Your task to perform on an android device: turn off wifi Image 0: 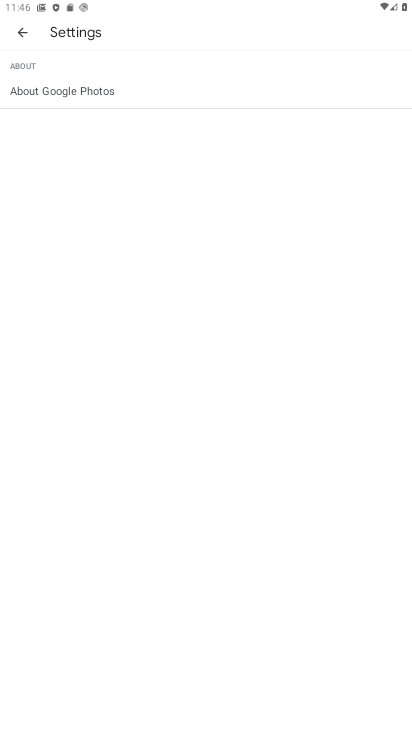
Step 0: click (21, 41)
Your task to perform on an android device: turn off wifi Image 1: 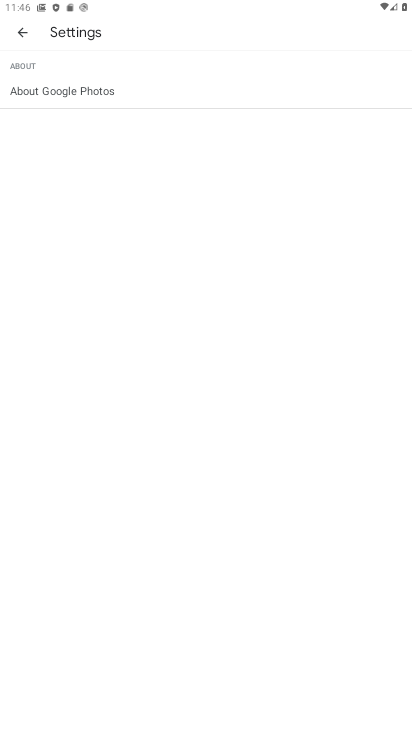
Step 1: click (21, 41)
Your task to perform on an android device: turn off wifi Image 2: 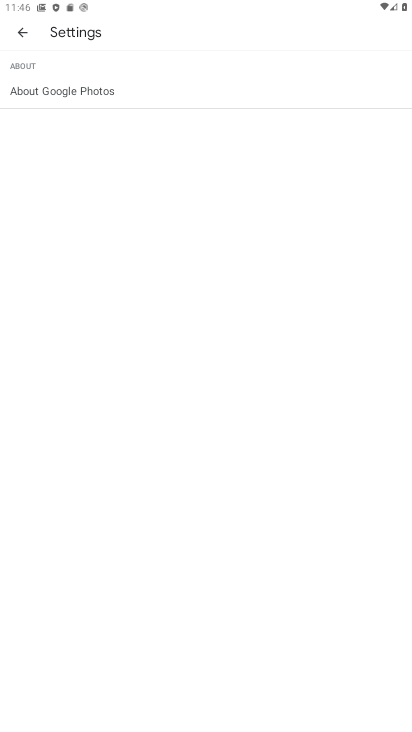
Step 2: click (21, 39)
Your task to perform on an android device: turn off wifi Image 3: 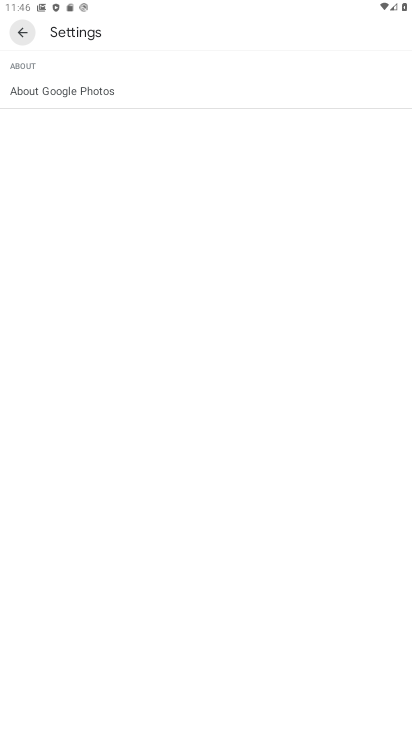
Step 3: click (21, 39)
Your task to perform on an android device: turn off wifi Image 4: 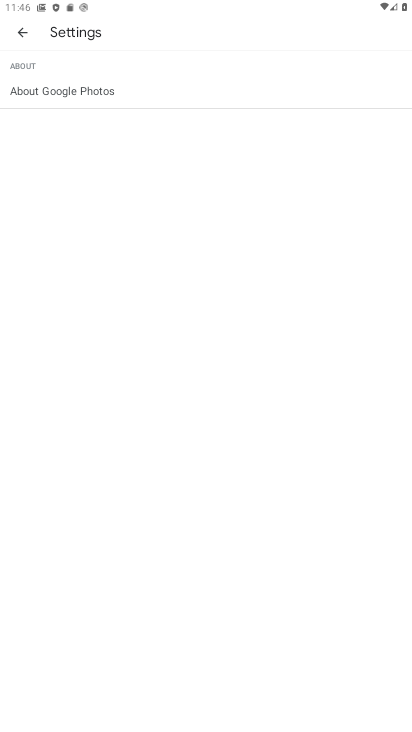
Step 4: click (21, 39)
Your task to perform on an android device: turn off wifi Image 5: 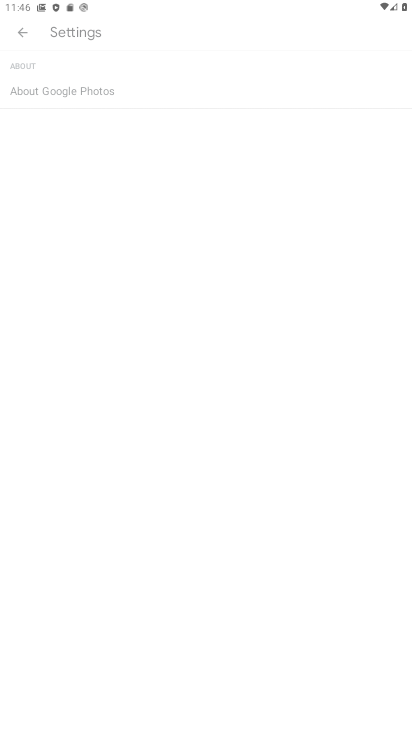
Step 5: click (23, 39)
Your task to perform on an android device: turn off wifi Image 6: 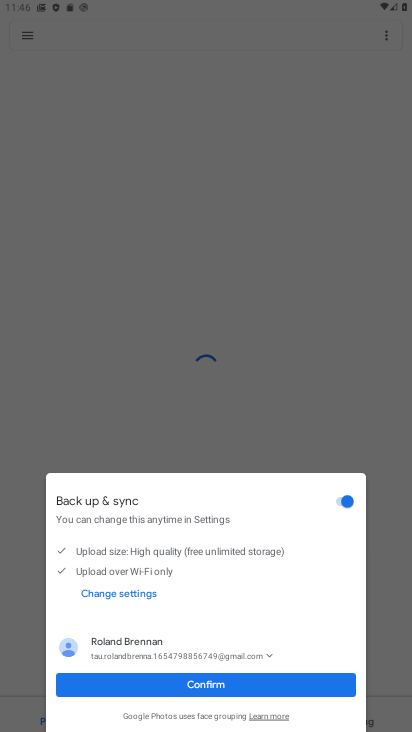
Step 6: press back button
Your task to perform on an android device: turn off wifi Image 7: 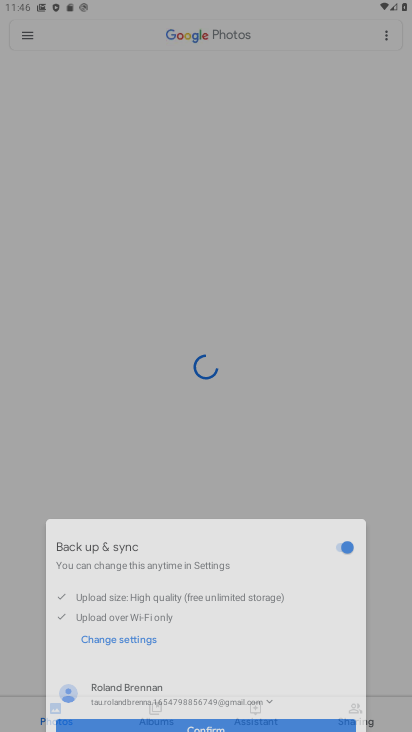
Step 7: press back button
Your task to perform on an android device: turn off wifi Image 8: 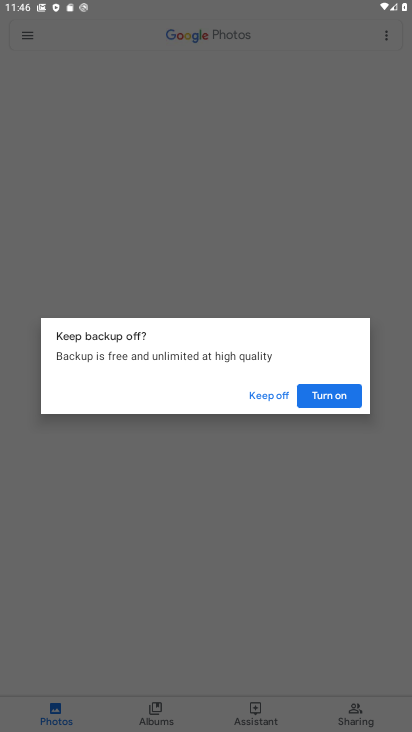
Step 8: press home button
Your task to perform on an android device: turn off wifi Image 9: 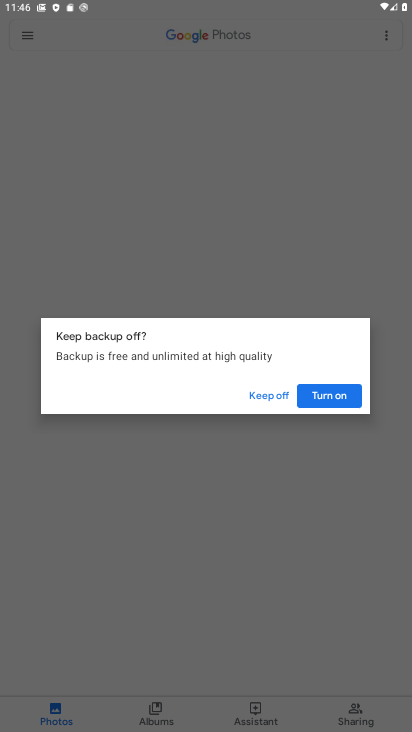
Step 9: press home button
Your task to perform on an android device: turn off wifi Image 10: 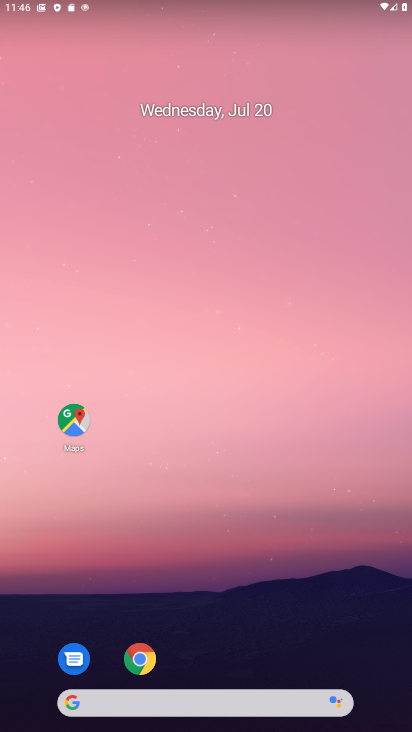
Step 10: click (123, 119)
Your task to perform on an android device: turn off wifi Image 11: 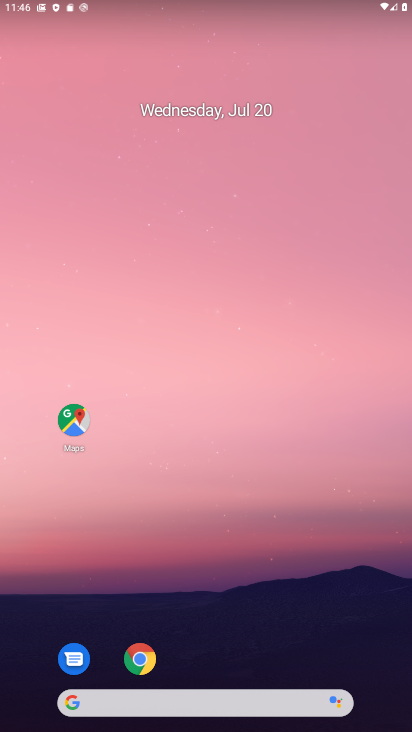
Step 11: drag from (269, 498) to (202, 151)
Your task to perform on an android device: turn off wifi Image 12: 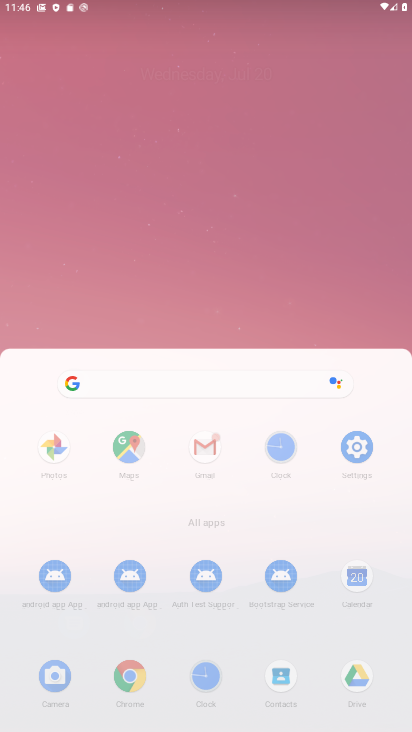
Step 12: drag from (233, 544) to (213, 161)
Your task to perform on an android device: turn off wifi Image 13: 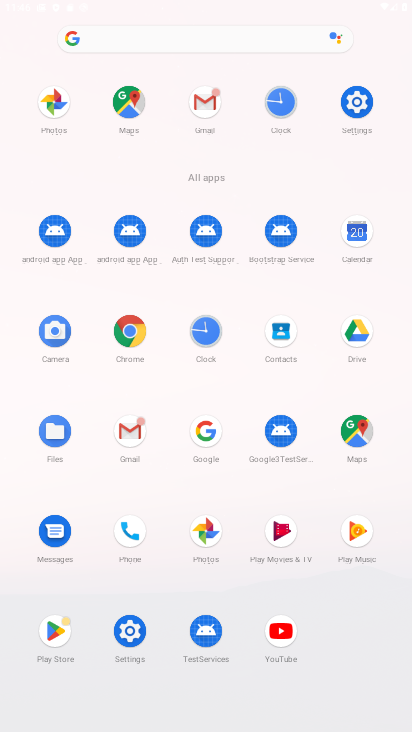
Step 13: drag from (208, 310) to (196, 143)
Your task to perform on an android device: turn off wifi Image 14: 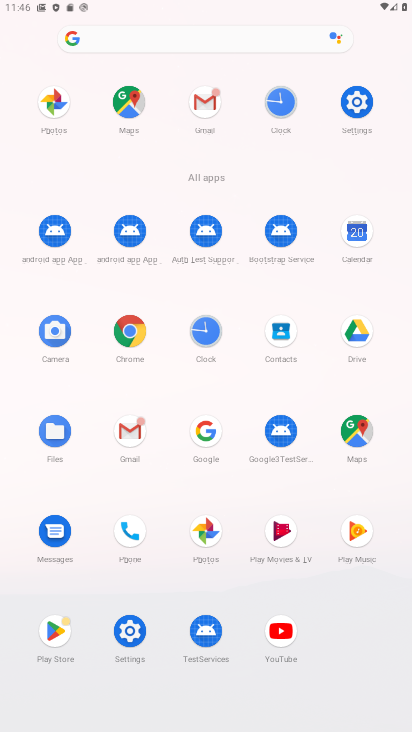
Step 14: click (354, 99)
Your task to perform on an android device: turn off wifi Image 15: 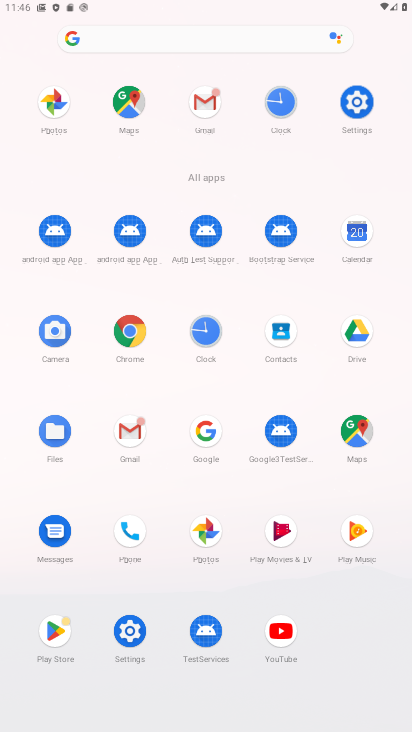
Step 15: click (356, 103)
Your task to perform on an android device: turn off wifi Image 16: 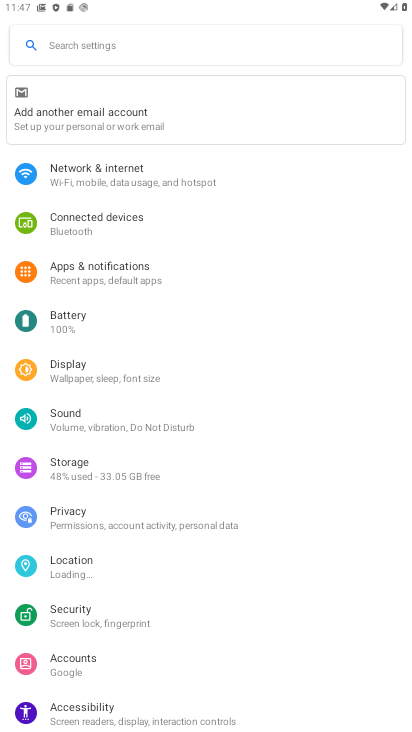
Step 16: click (100, 177)
Your task to perform on an android device: turn off wifi Image 17: 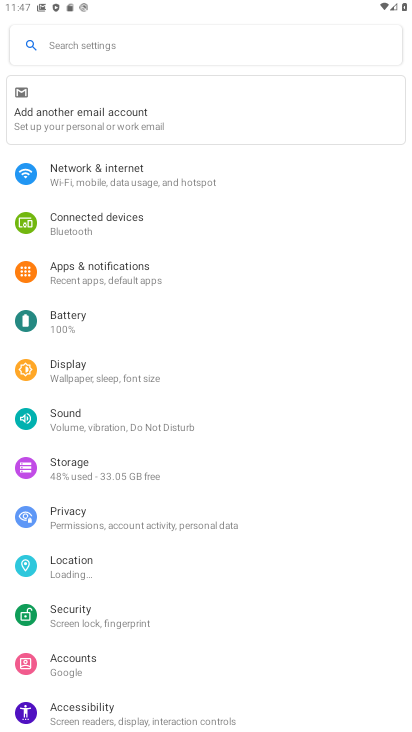
Step 17: click (101, 176)
Your task to perform on an android device: turn off wifi Image 18: 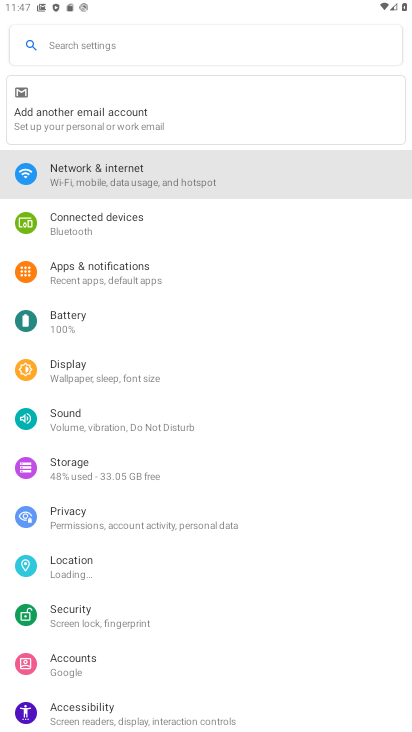
Step 18: click (101, 176)
Your task to perform on an android device: turn off wifi Image 19: 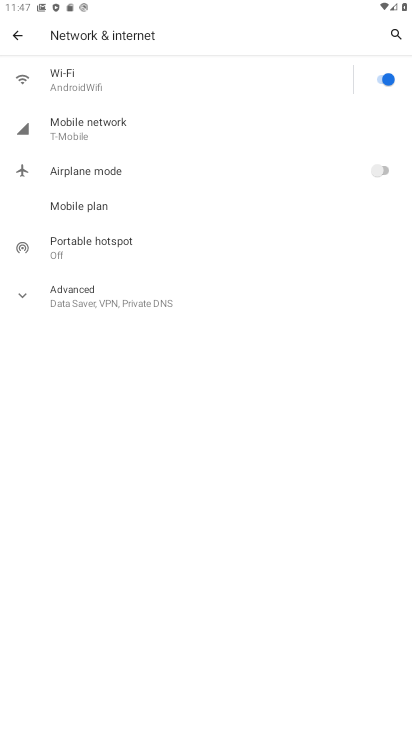
Step 19: click (386, 73)
Your task to perform on an android device: turn off wifi Image 20: 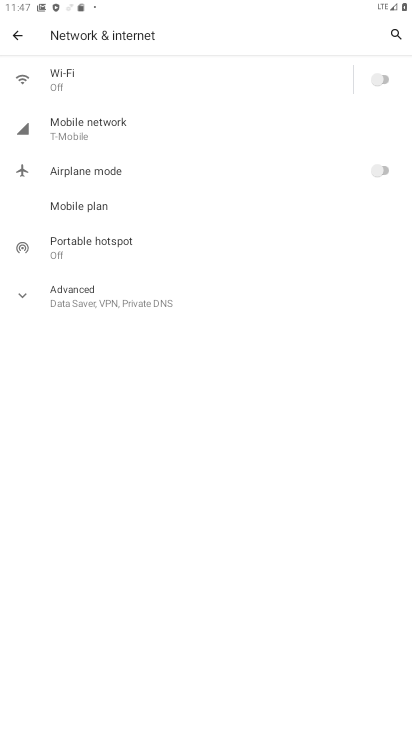
Step 20: task complete